Your task to perform on an android device: install app "Messenger Lite" Image 0: 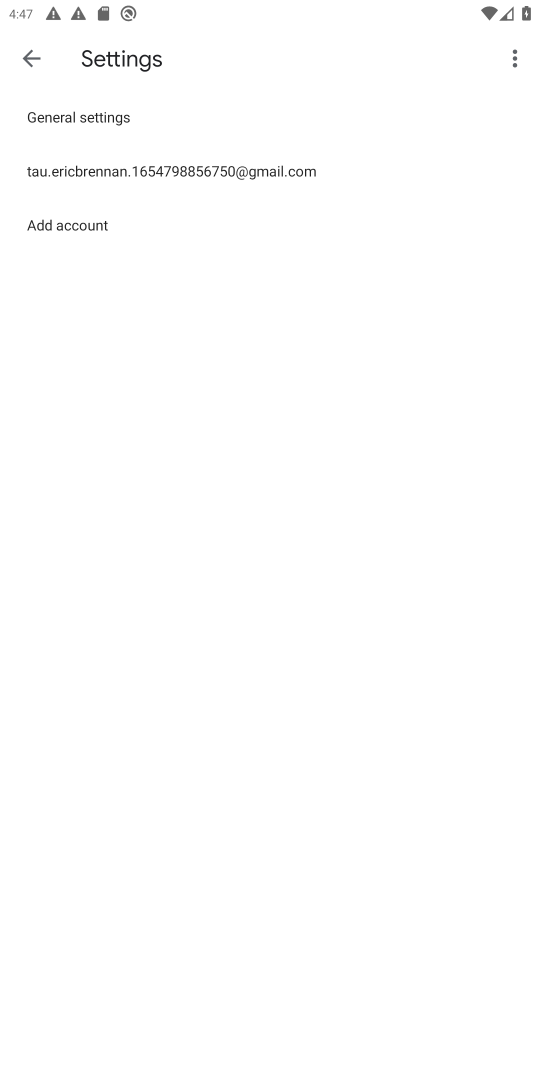
Step 0: press home button
Your task to perform on an android device: install app "Messenger Lite" Image 1: 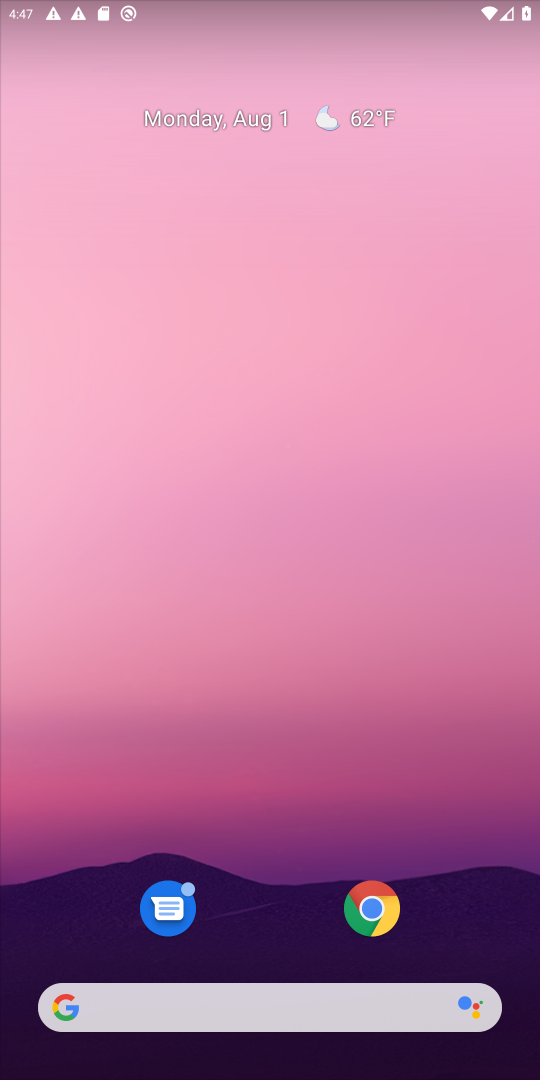
Step 1: drag from (252, 918) to (336, 168)
Your task to perform on an android device: install app "Messenger Lite" Image 2: 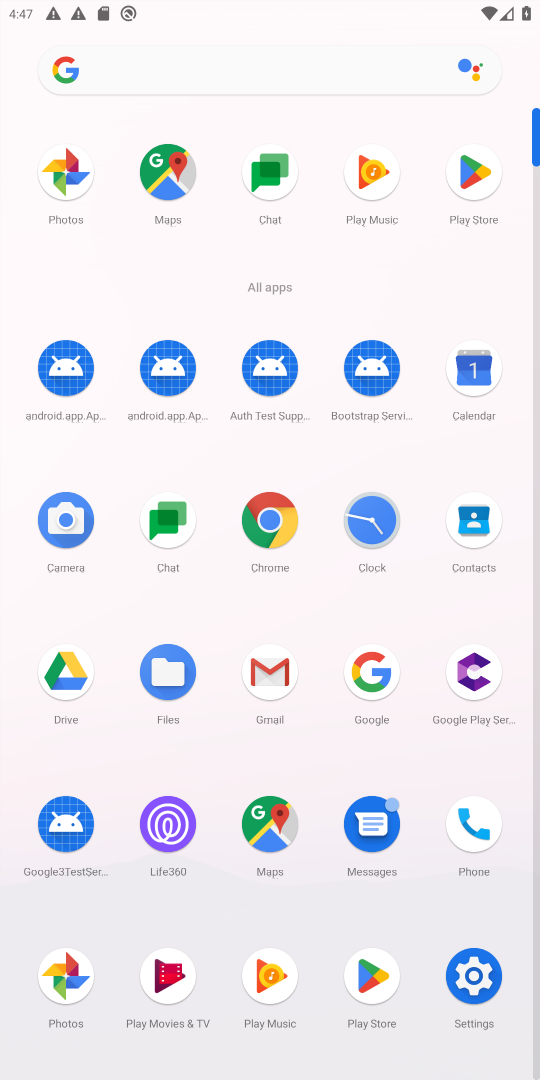
Step 2: click (480, 232)
Your task to perform on an android device: install app "Messenger Lite" Image 3: 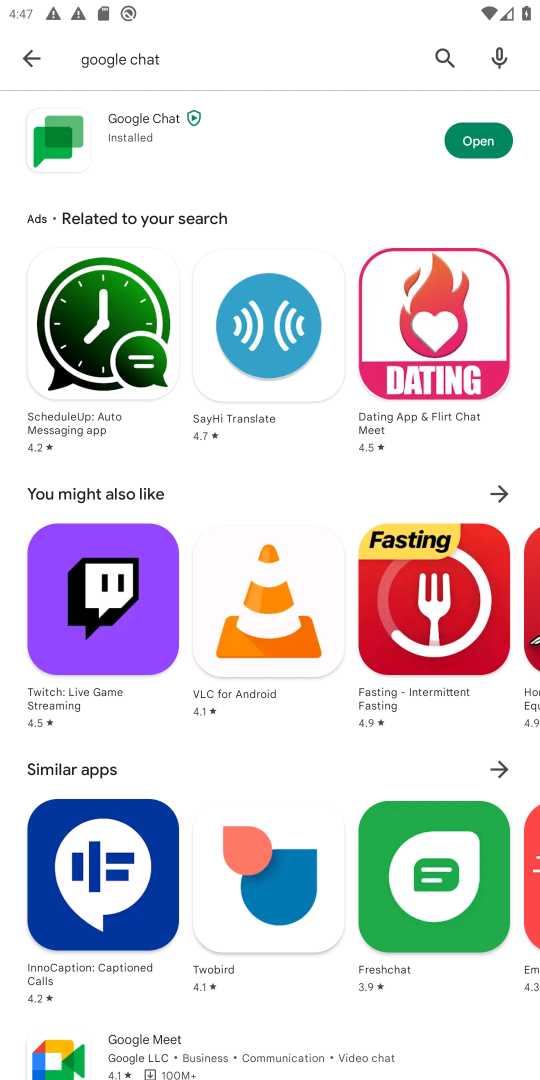
Step 3: click (33, 52)
Your task to perform on an android device: install app "Messenger Lite" Image 4: 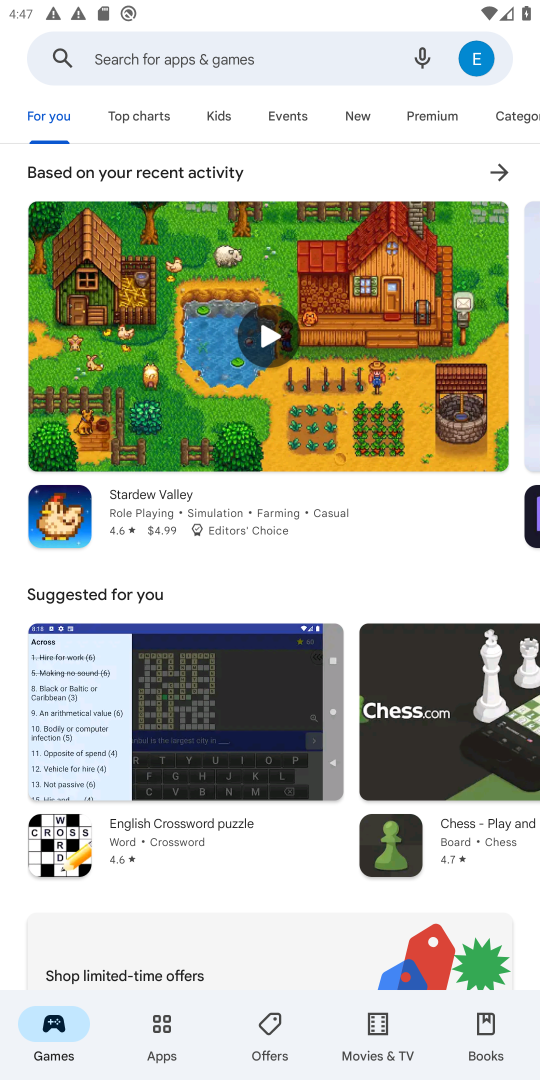
Step 4: click (248, 50)
Your task to perform on an android device: install app "Messenger Lite" Image 5: 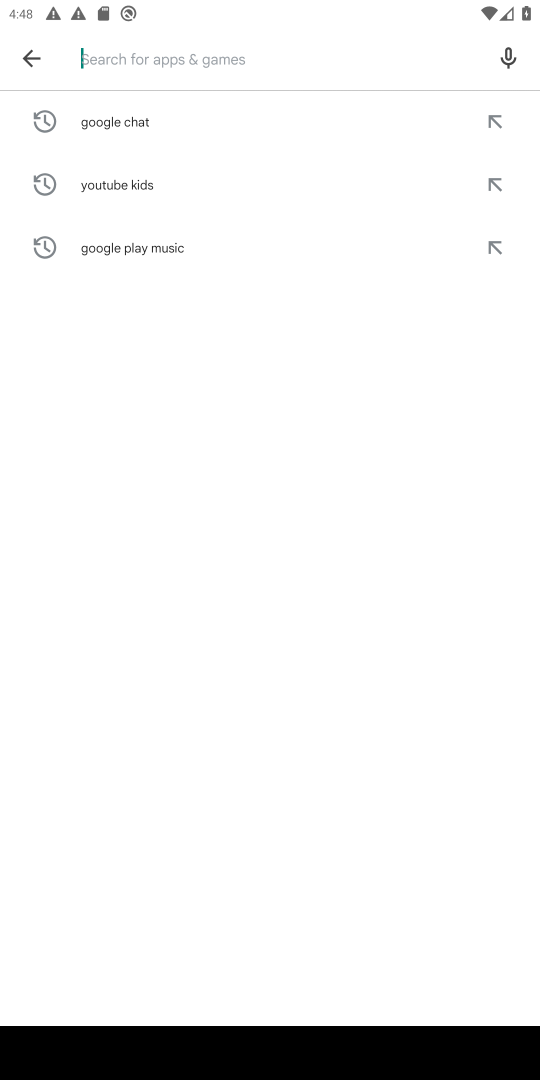
Step 5: type "Messenger Lite"
Your task to perform on an android device: install app "Messenger Lite" Image 6: 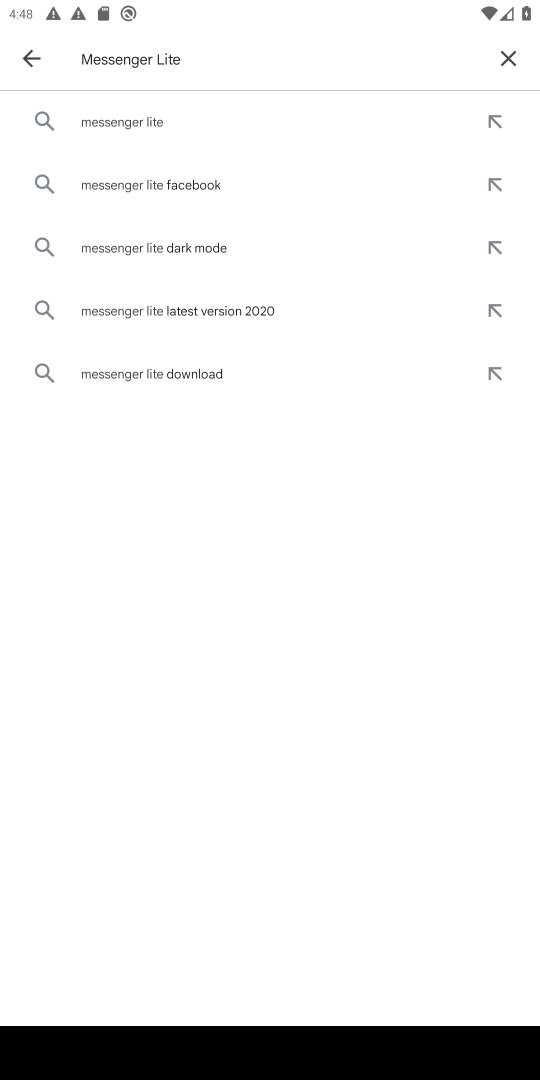
Step 6: click (153, 128)
Your task to perform on an android device: install app "Messenger Lite" Image 7: 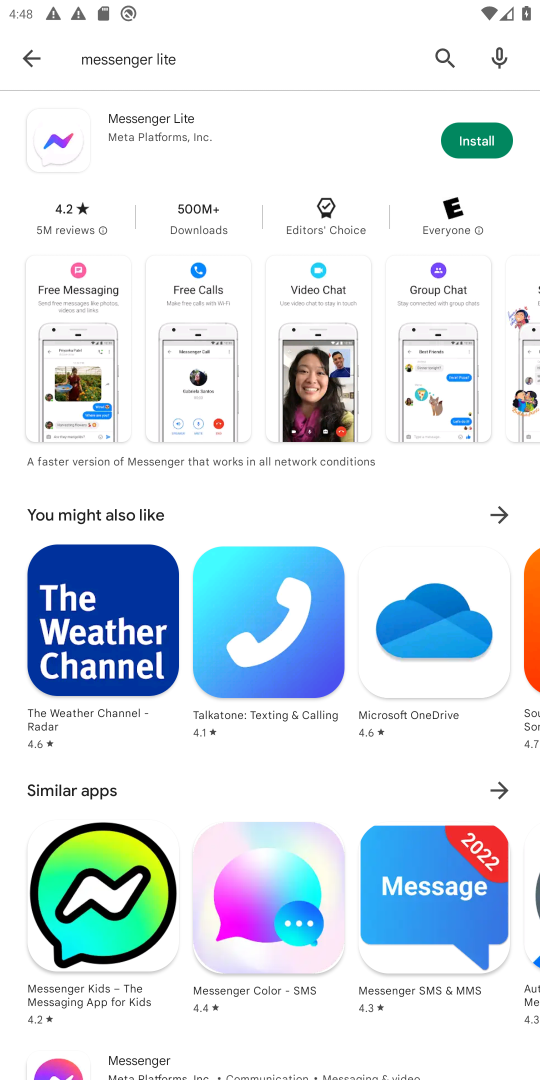
Step 7: click (478, 131)
Your task to perform on an android device: install app "Messenger Lite" Image 8: 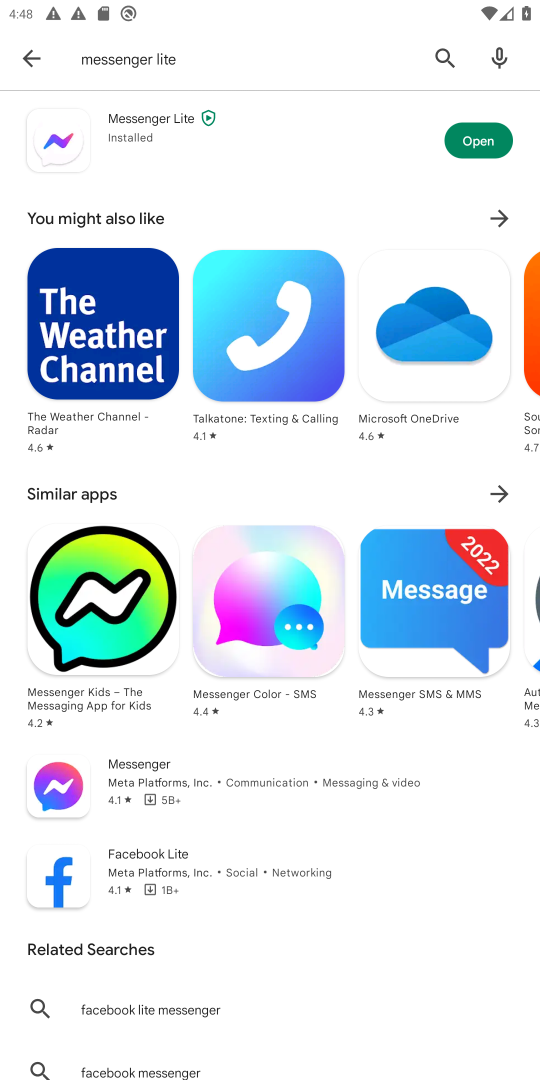
Step 8: click (475, 140)
Your task to perform on an android device: install app "Messenger Lite" Image 9: 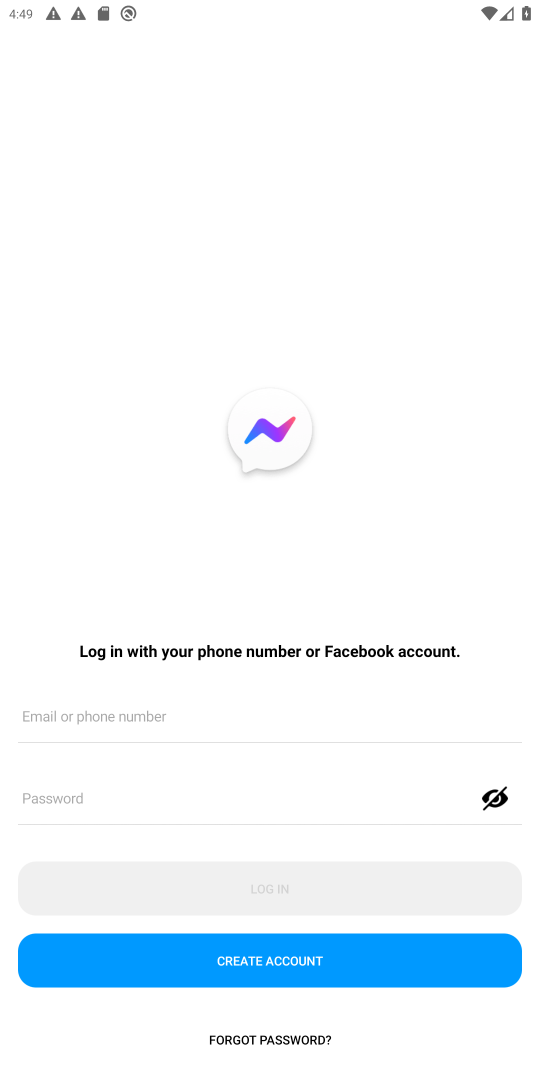
Step 9: task complete